Your task to perform on an android device: refresh tabs in the chrome app Image 0: 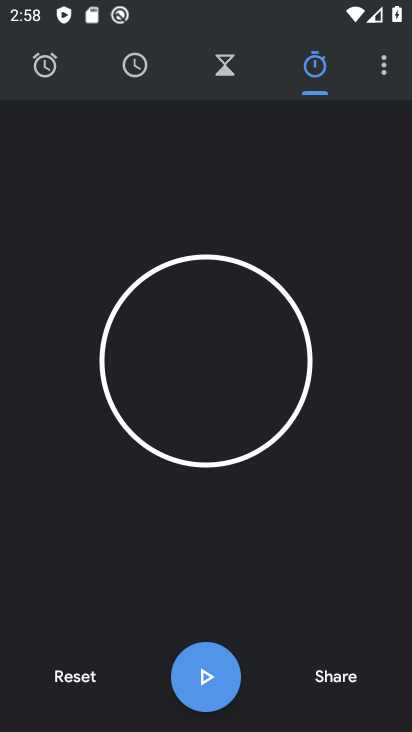
Step 0: press home button
Your task to perform on an android device: refresh tabs in the chrome app Image 1: 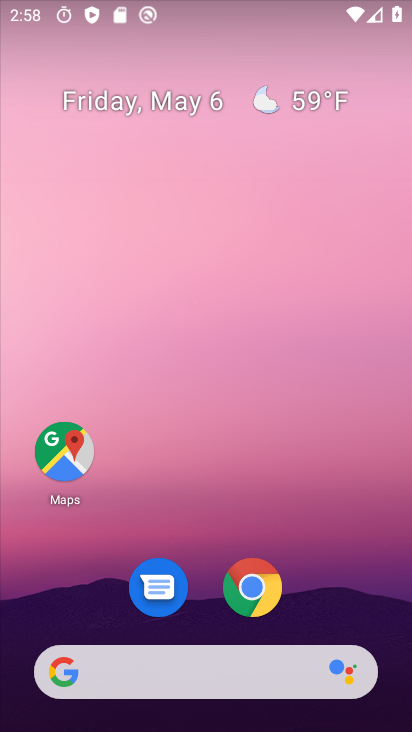
Step 1: click (258, 581)
Your task to perform on an android device: refresh tabs in the chrome app Image 2: 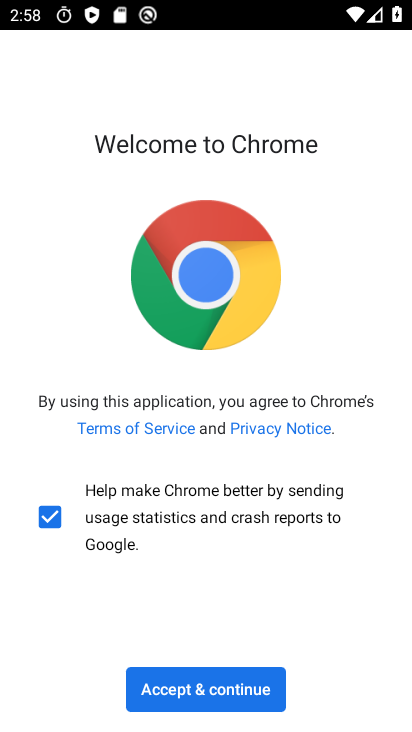
Step 2: click (251, 686)
Your task to perform on an android device: refresh tabs in the chrome app Image 3: 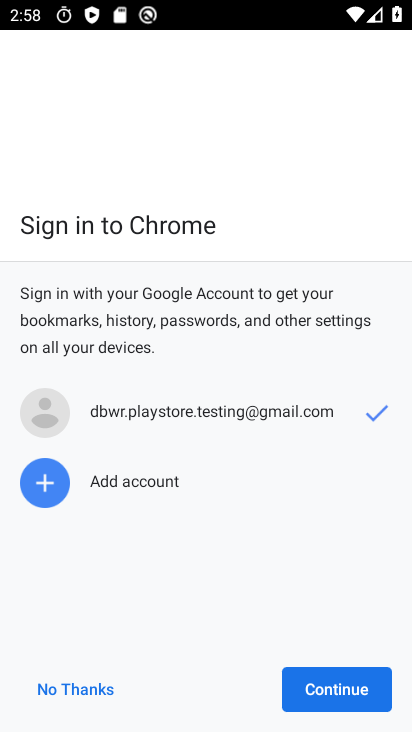
Step 3: click (331, 695)
Your task to perform on an android device: refresh tabs in the chrome app Image 4: 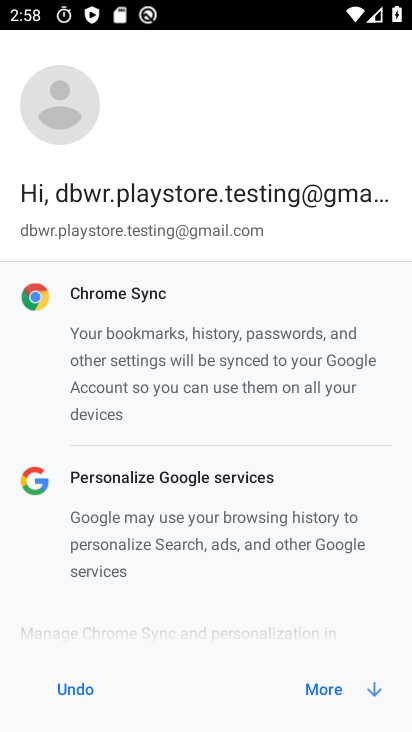
Step 4: click (336, 679)
Your task to perform on an android device: refresh tabs in the chrome app Image 5: 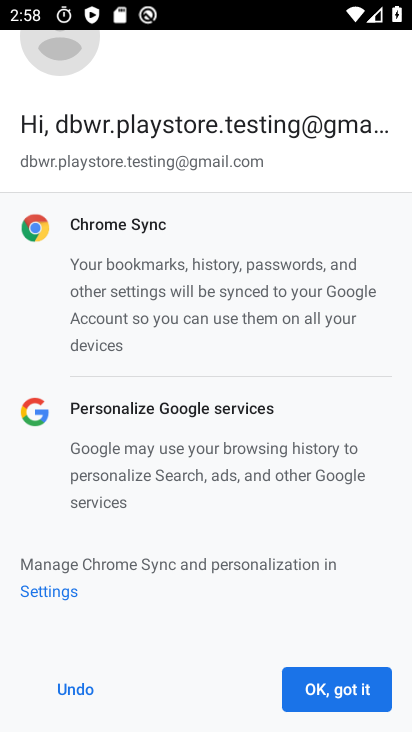
Step 5: click (344, 685)
Your task to perform on an android device: refresh tabs in the chrome app Image 6: 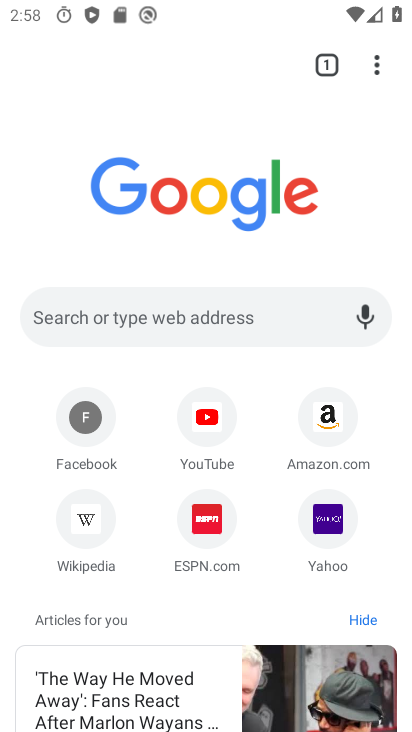
Step 6: click (376, 66)
Your task to perform on an android device: refresh tabs in the chrome app Image 7: 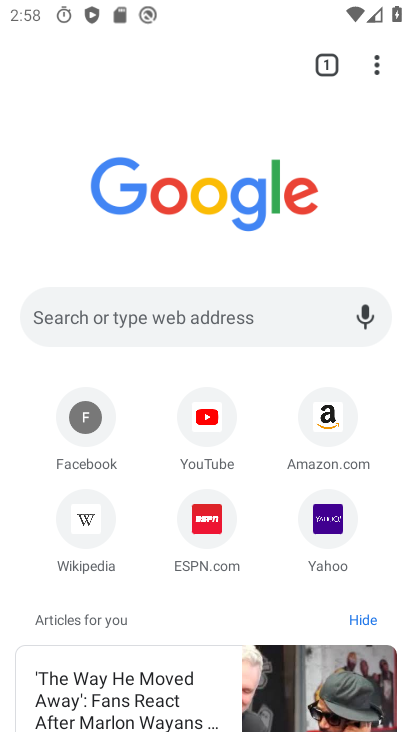
Step 7: task complete